Your task to perform on an android device: change the clock display to analog Image 0: 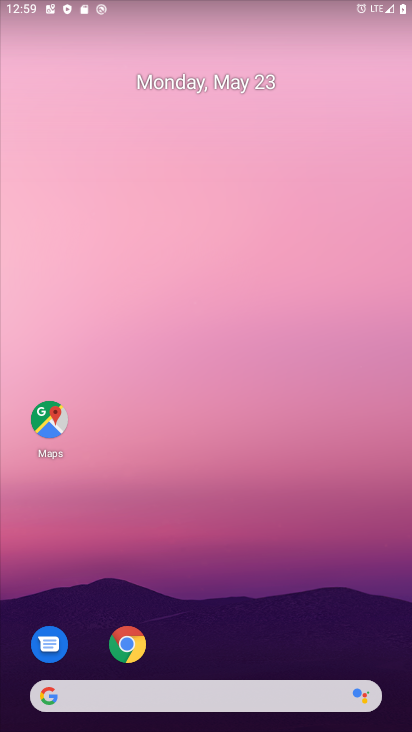
Step 0: drag from (325, 609) to (282, 35)
Your task to perform on an android device: change the clock display to analog Image 1: 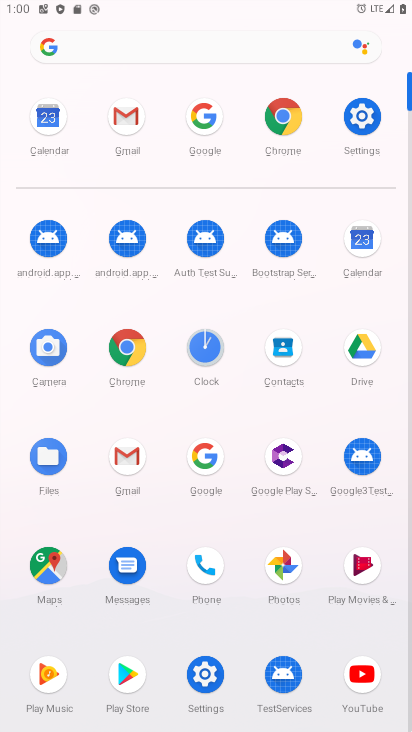
Step 1: click (205, 357)
Your task to perform on an android device: change the clock display to analog Image 2: 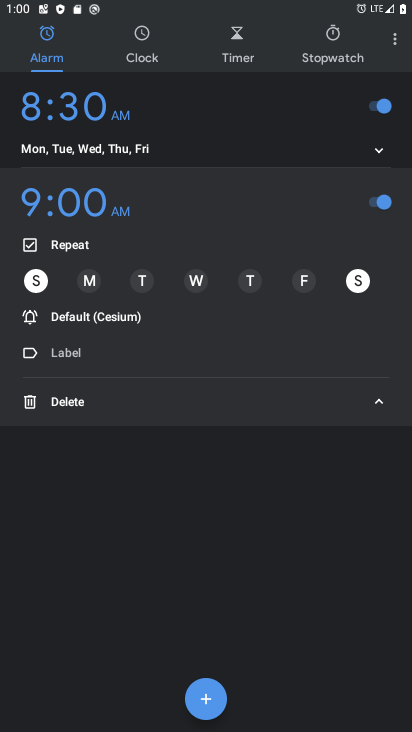
Step 2: click (393, 34)
Your task to perform on an android device: change the clock display to analog Image 3: 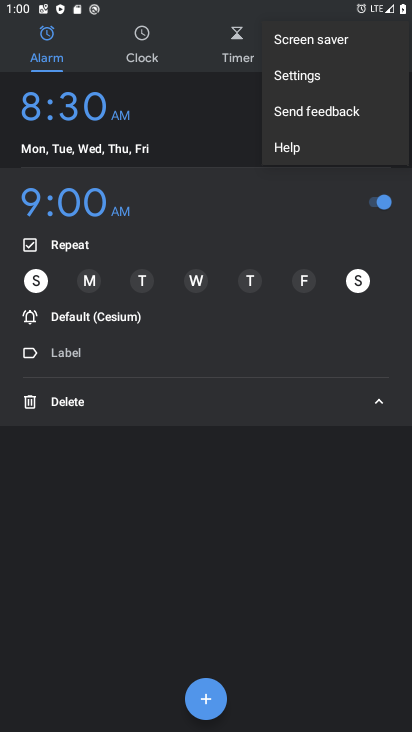
Step 3: click (309, 82)
Your task to perform on an android device: change the clock display to analog Image 4: 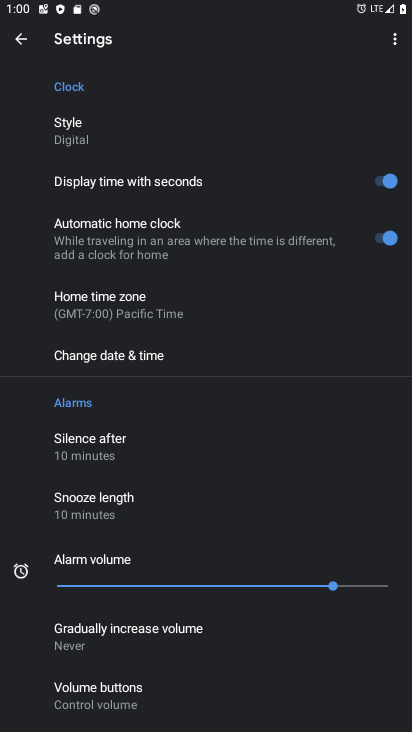
Step 4: click (111, 141)
Your task to perform on an android device: change the clock display to analog Image 5: 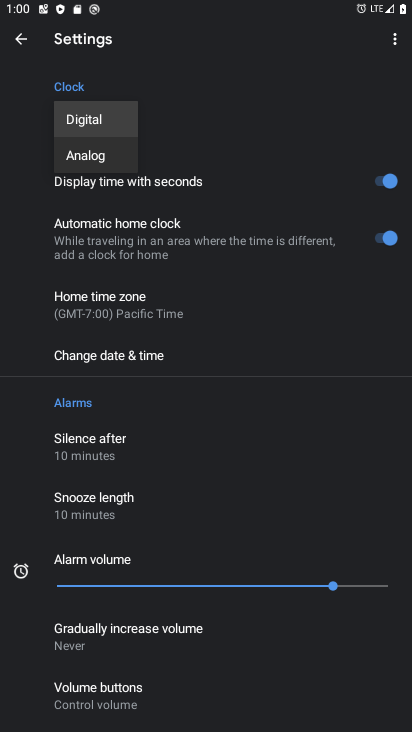
Step 5: click (99, 156)
Your task to perform on an android device: change the clock display to analog Image 6: 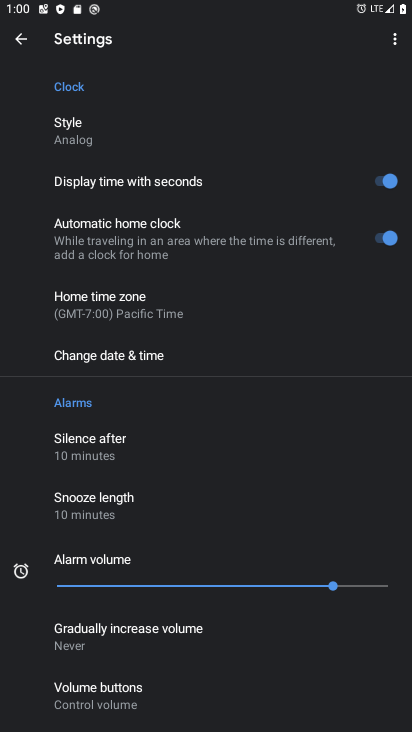
Step 6: task complete